Your task to perform on an android device: What is the recent news? Image 0: 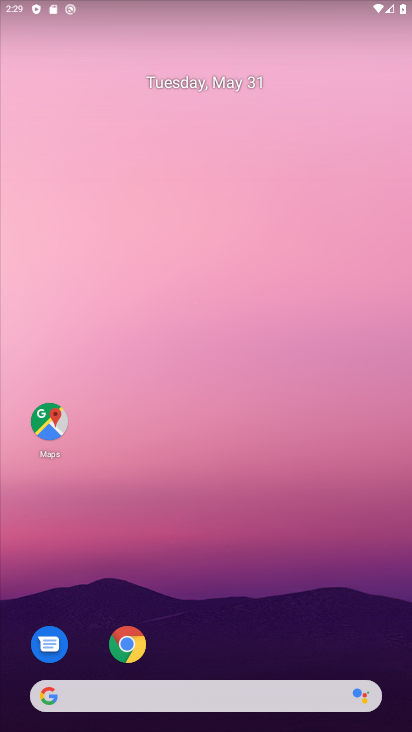
Step 0: click (177, 708)
Your task to perform on an android device: What is the recent news? Image 1: 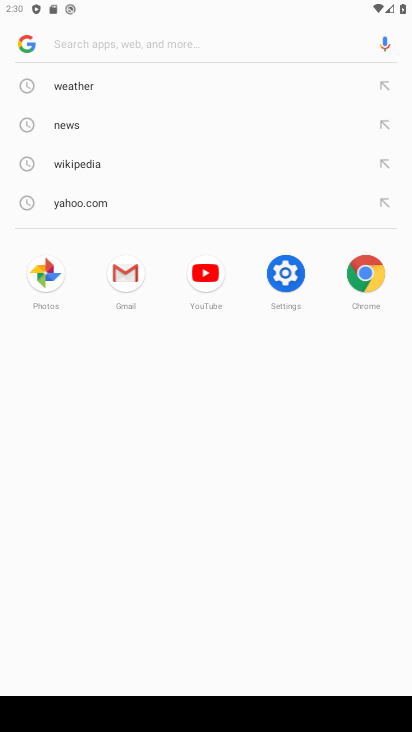
Step 1: click (82, 125)
Your task to perform on an android device: What is the recent news? Image 2: 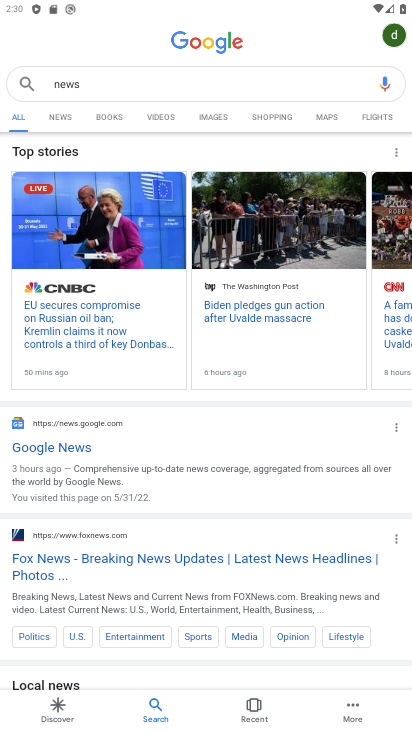
Step 2: task complete